Your task to perform on an android device: Look up the best rated headphones on Walmart. Image 0: 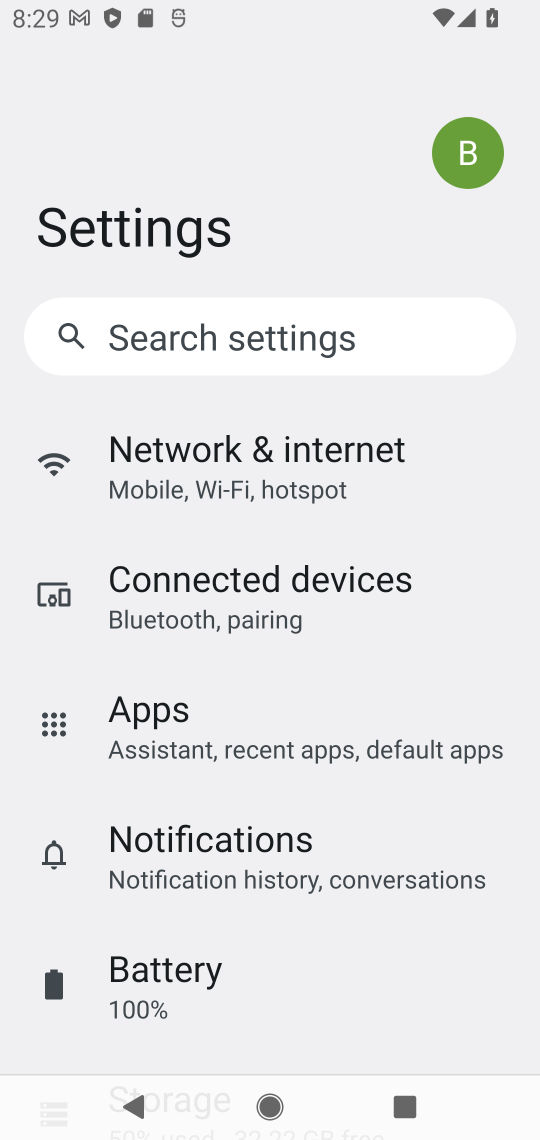
Step 0: press home button
Your task to perform on an android device: Look up the best rated headphones on Walmart. Image 1: 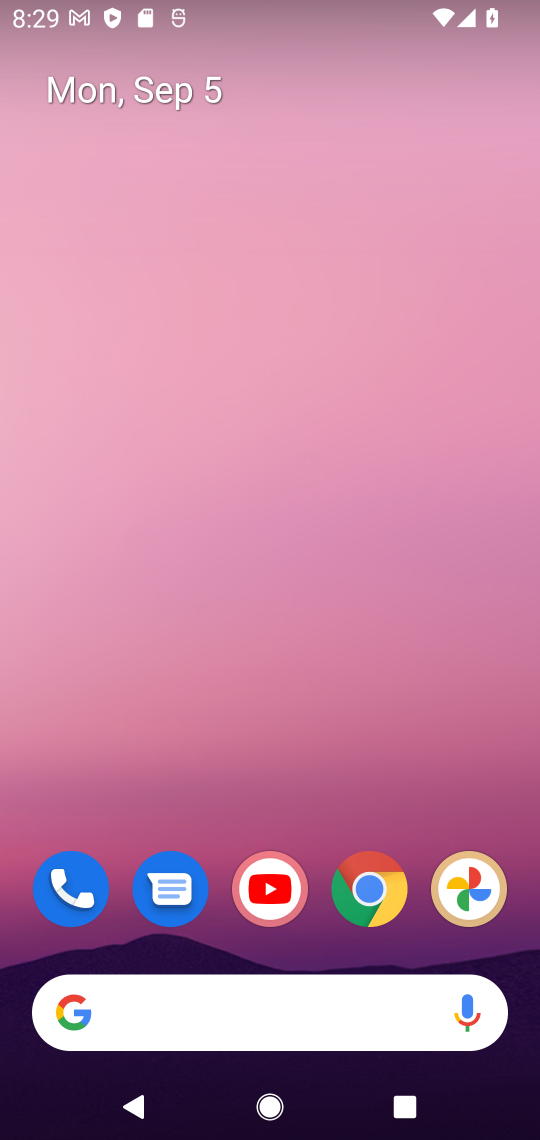
Step 1: click (268, 998)
Your task to perform on an android device: Look up the best rated headphones on Walmart. Image 2: 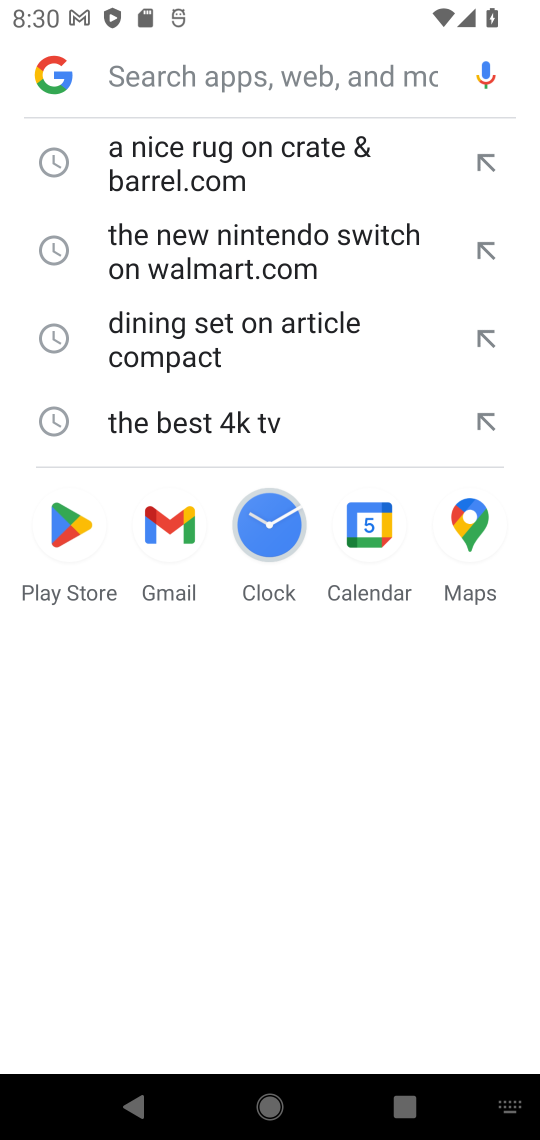
Step 2: type " the best rated headphones on Walmart"
Your task to perform on an android device: Look up the best rated headphones on Walmart. Image 3: 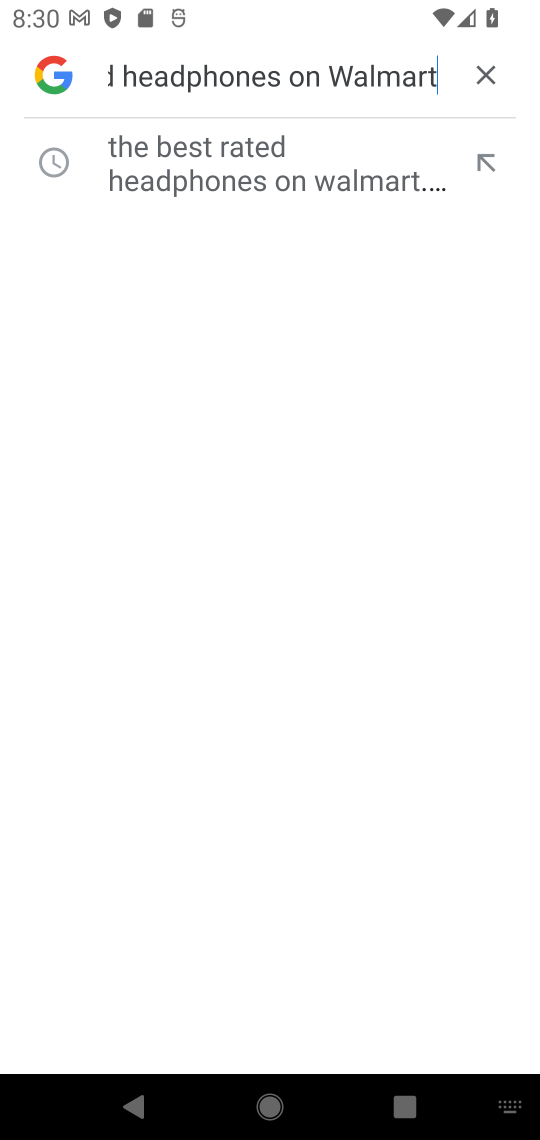
Step 3: click (195, 186)
Your task to perform on an android device: Look up the best rated headphones on Walmart. Image 4: 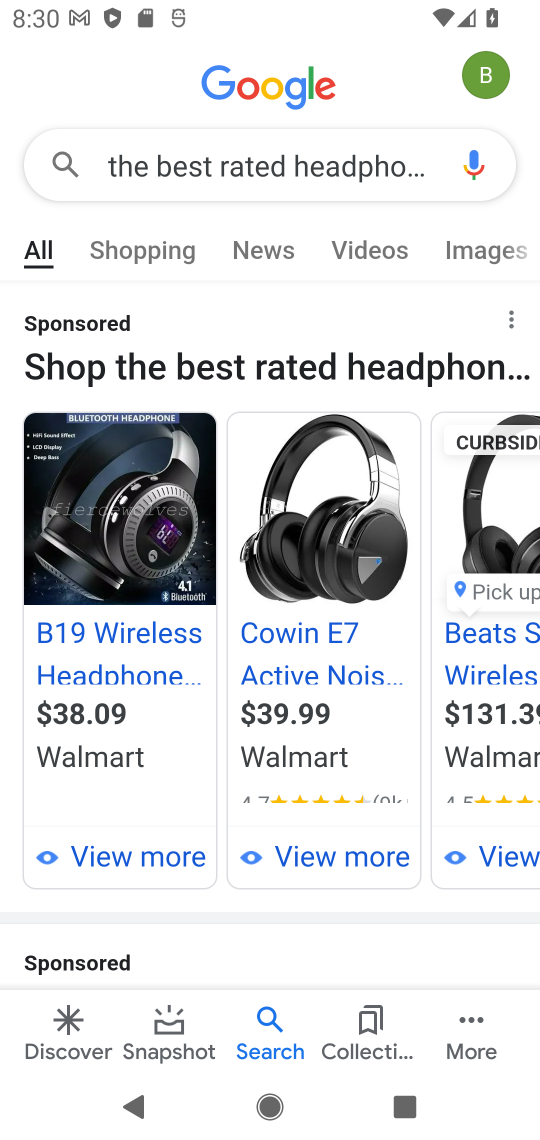
Step 4: task complete